Your task to perform on an android device: check google app version Image 0: 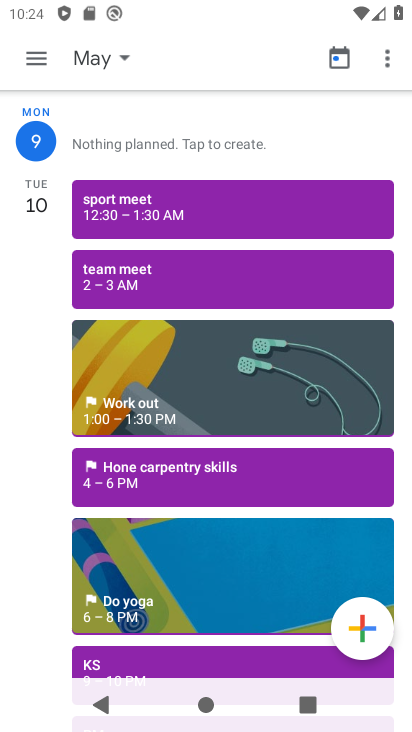
Step 0: press home button
Your task to perform on an android device: check google app version Image 1: 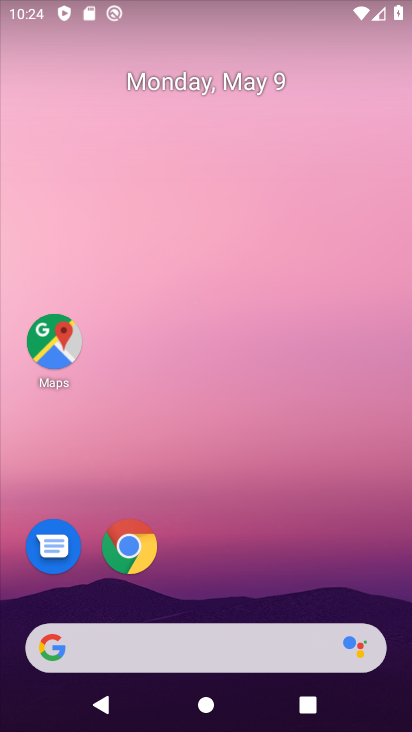
Step 1: click (47, 636)
Your task to perform on an android device: check google app version Image 2: 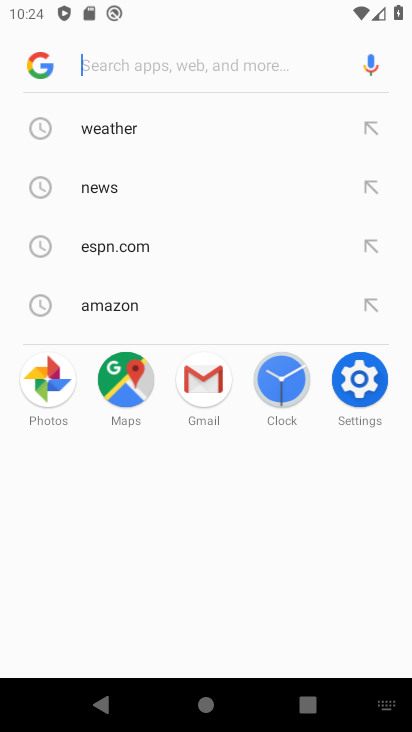
Step 2: click (35, 57)
Your task to perform on an android device: check google app version Image 3: 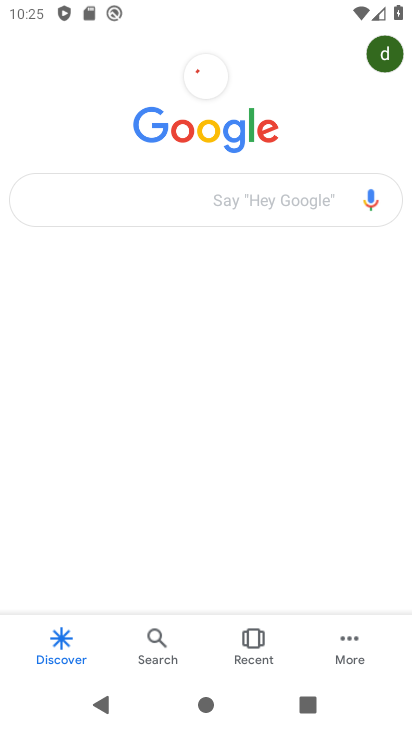
Step 3: click (346, 632)
Your task to perform on an android device: check google app version Image 4: 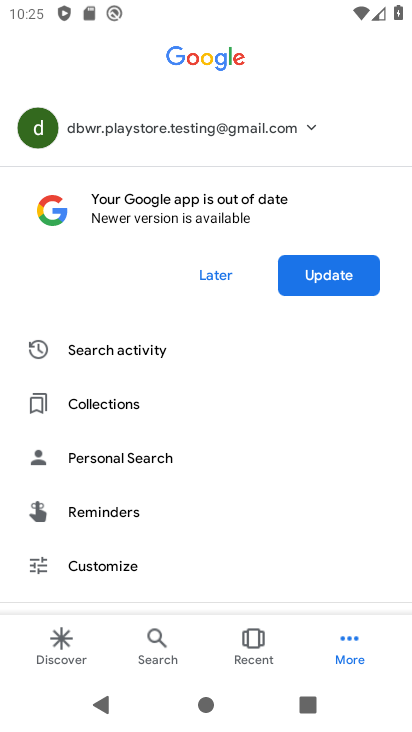
Step 4: drag from (196, 523) to (206, 355)
Your task to perform on an android device: check google app version Image 5: 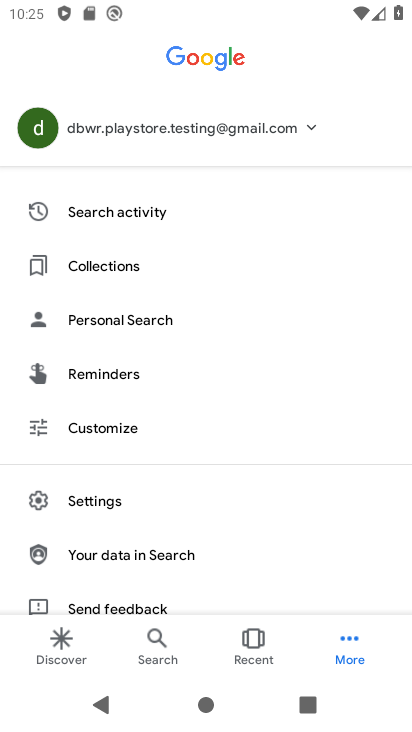
Step 5: click (113, 489)
Your task to perform on an android device: check google app version Image 6: 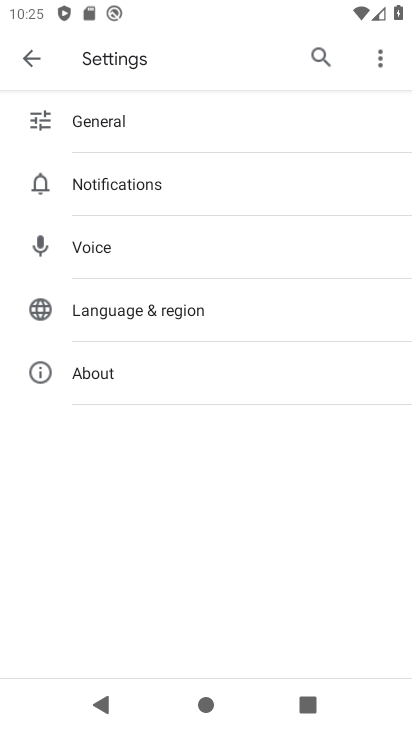
Step 6: click (101, 372)
Your task to perform on an android device: check google app version Image 7: 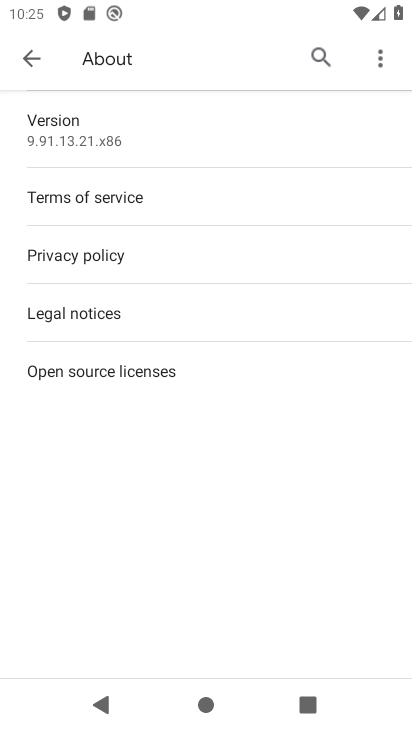
Step 7: task complete